Your task to perform on an android device: Add "lenovo thinkpad" to the cart on target Image 0: 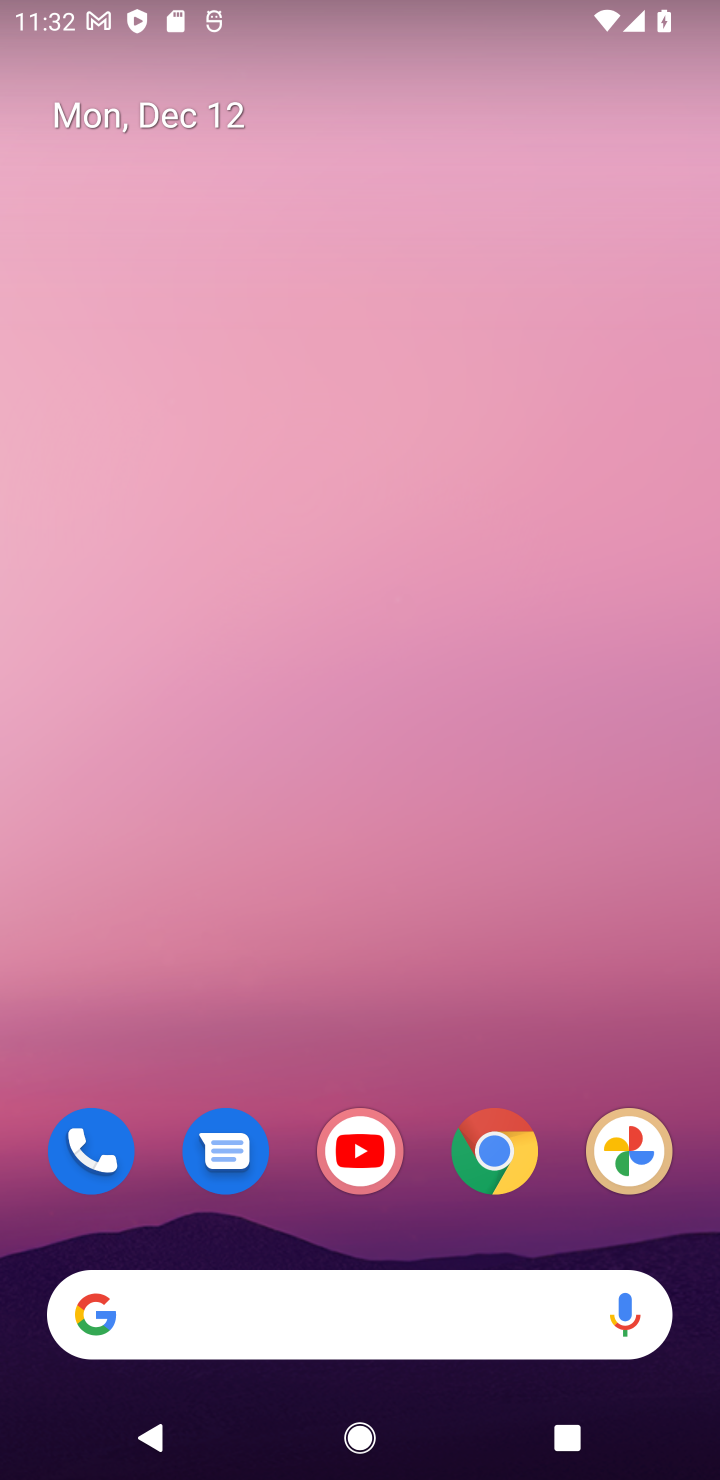
Step 0: drag from (274, 1209) to (311, 301)
Your task to perform on an android device: Add "lenovo thinkpad" to the cart on target Image 1: 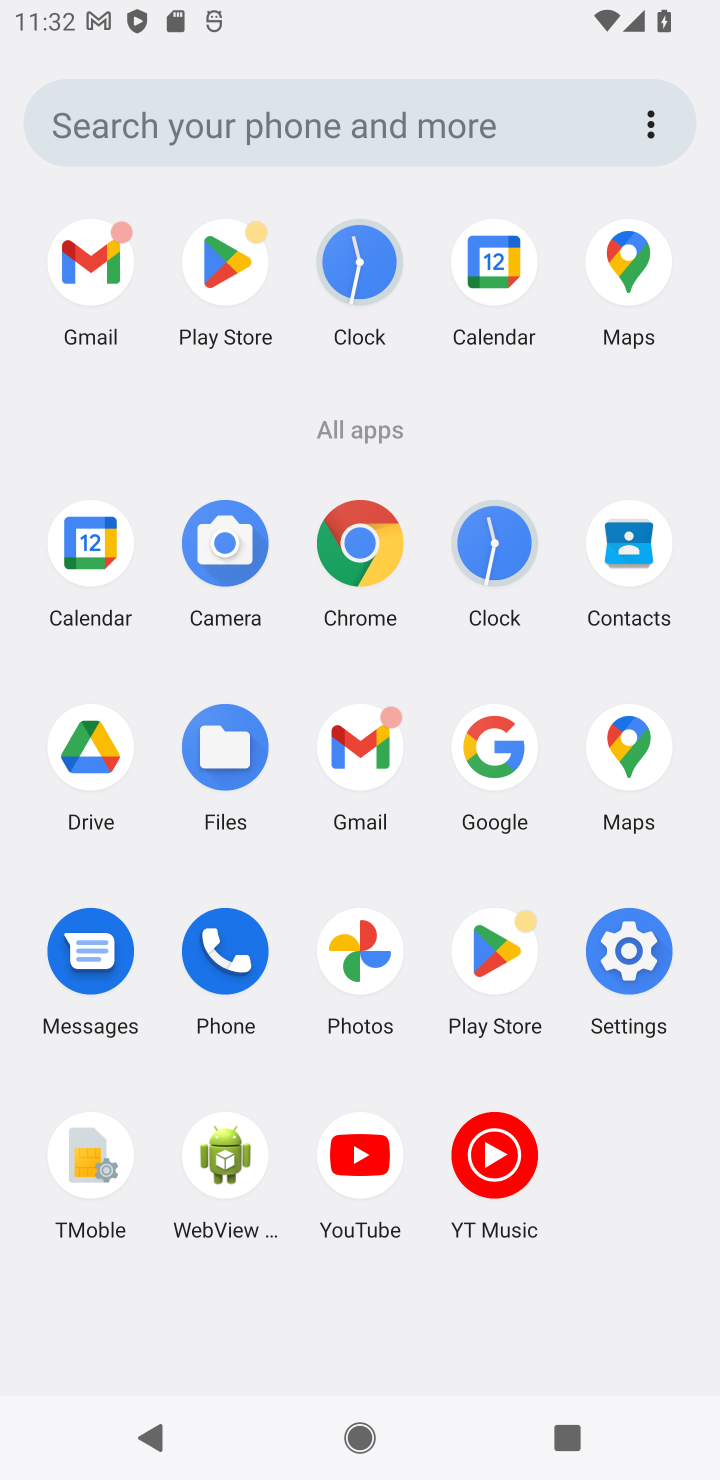
Step 1: click (507, 761)
Your task to perform on an android device: Add "lenovo thinkpad" to the cart on target Image 2: 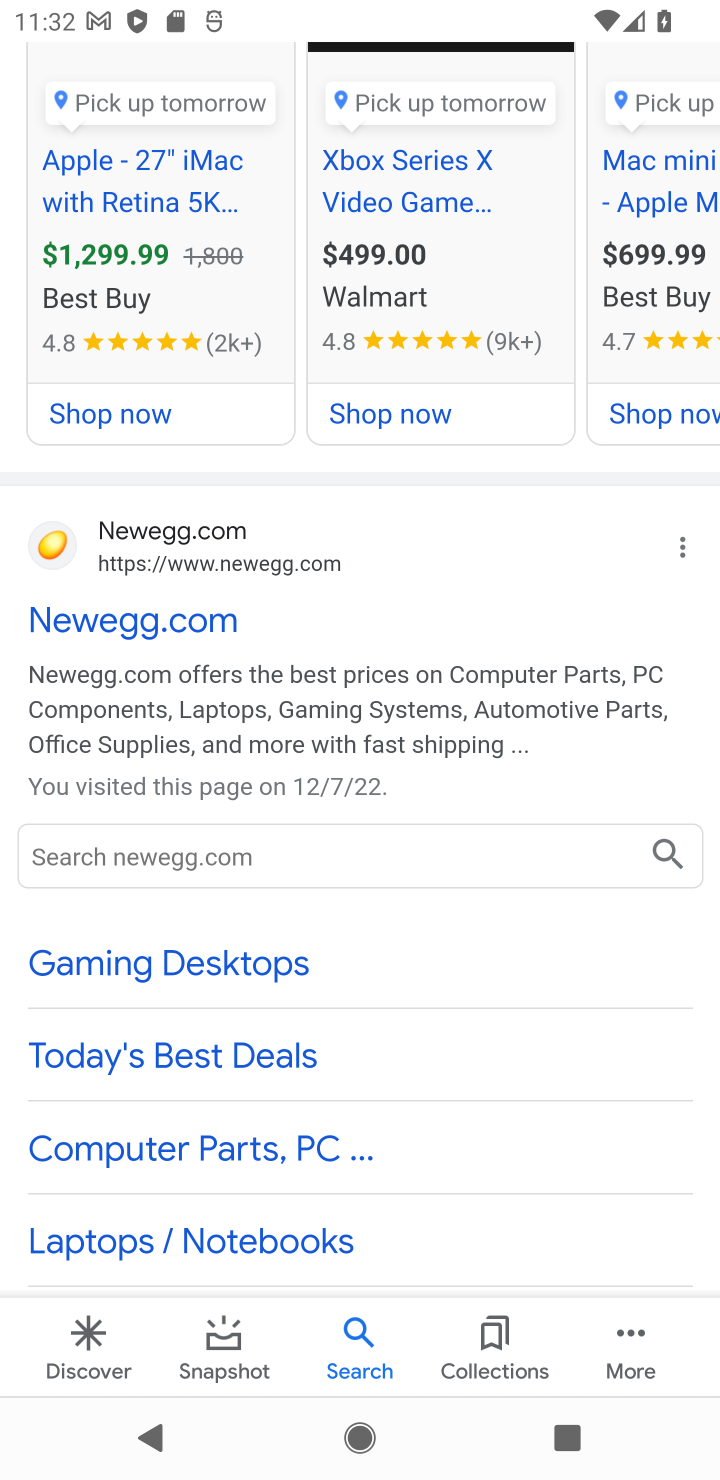
Step 2: drag from (393, 237) to (405, 991)
Your task to perform on an android device: Add "lenovo thinkpad" to the cart on target Image 3: 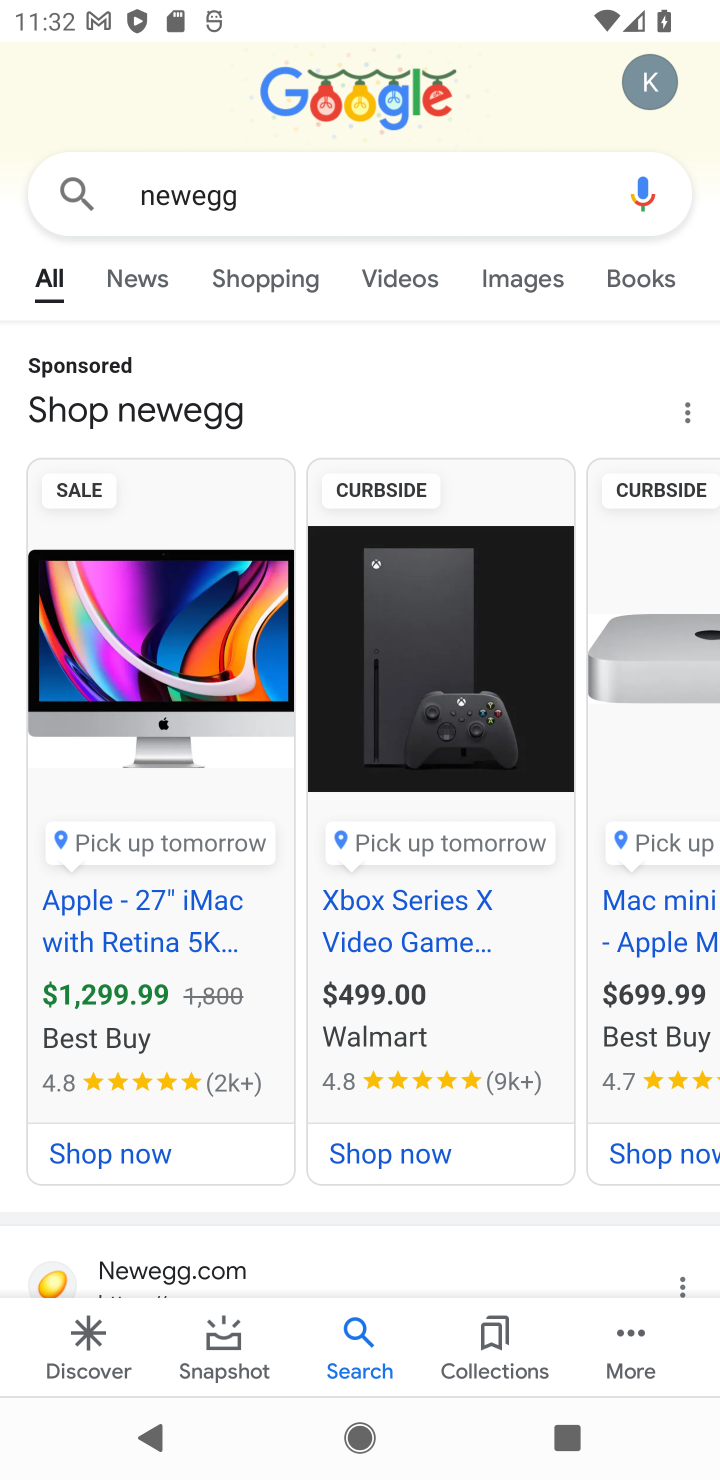
Step 3: click (182, 200)
Your task to perform on an android device: Add "lenovo thinkpad" to the cart on target Image 4: 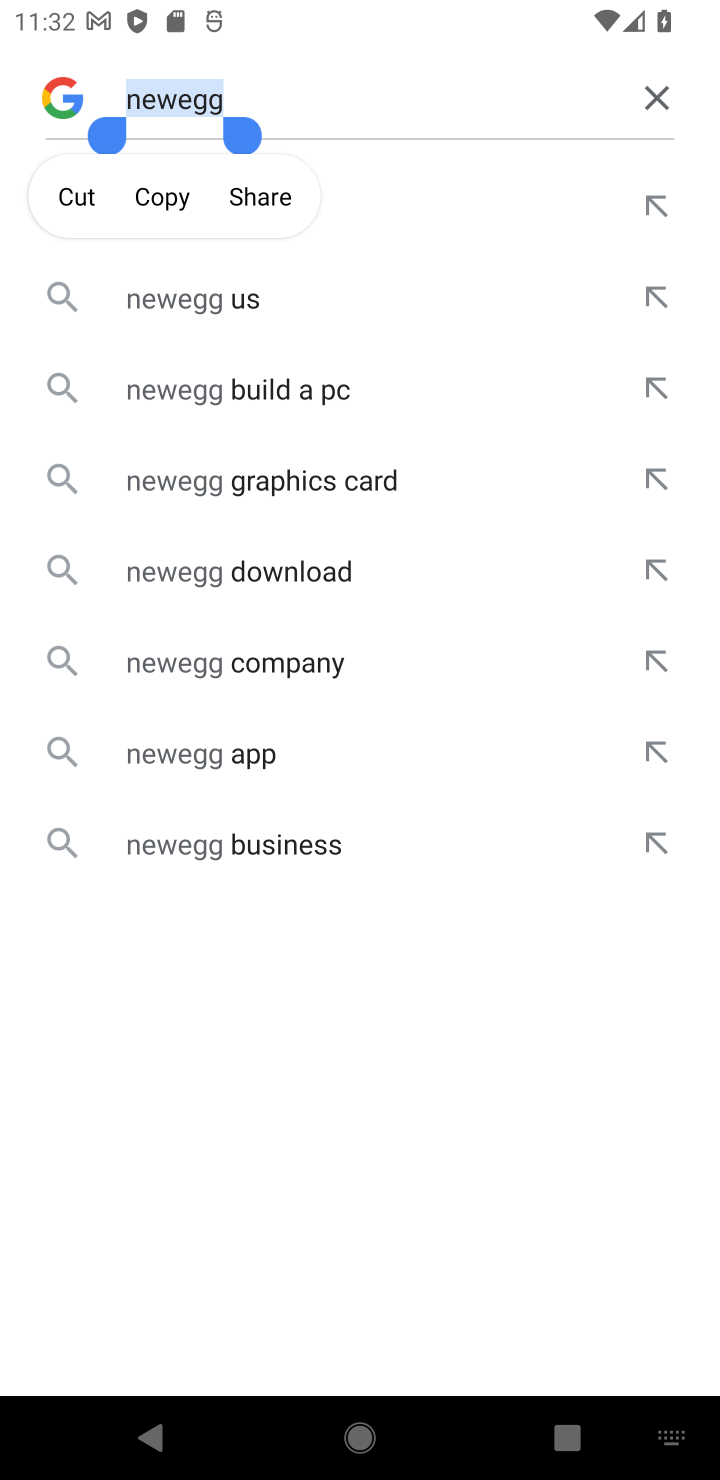
Step 4: click (651, 100)
Your task to perform on an android device: Add "lenovo thinkpad" to the cart on target Image 5: 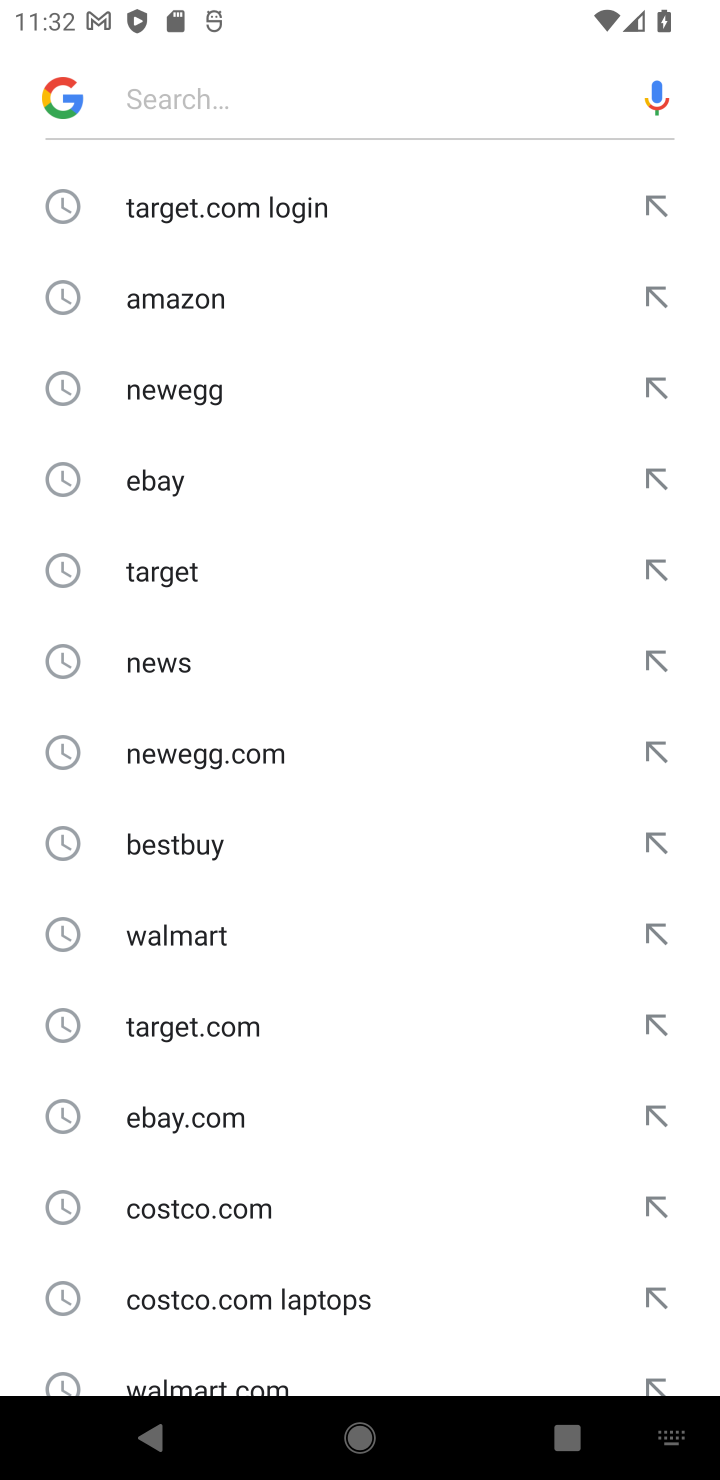
Step 5: click (159, 573)
Your task to perform on an android device: Add "lenovo thinkpad" to the cart on target Image 6: 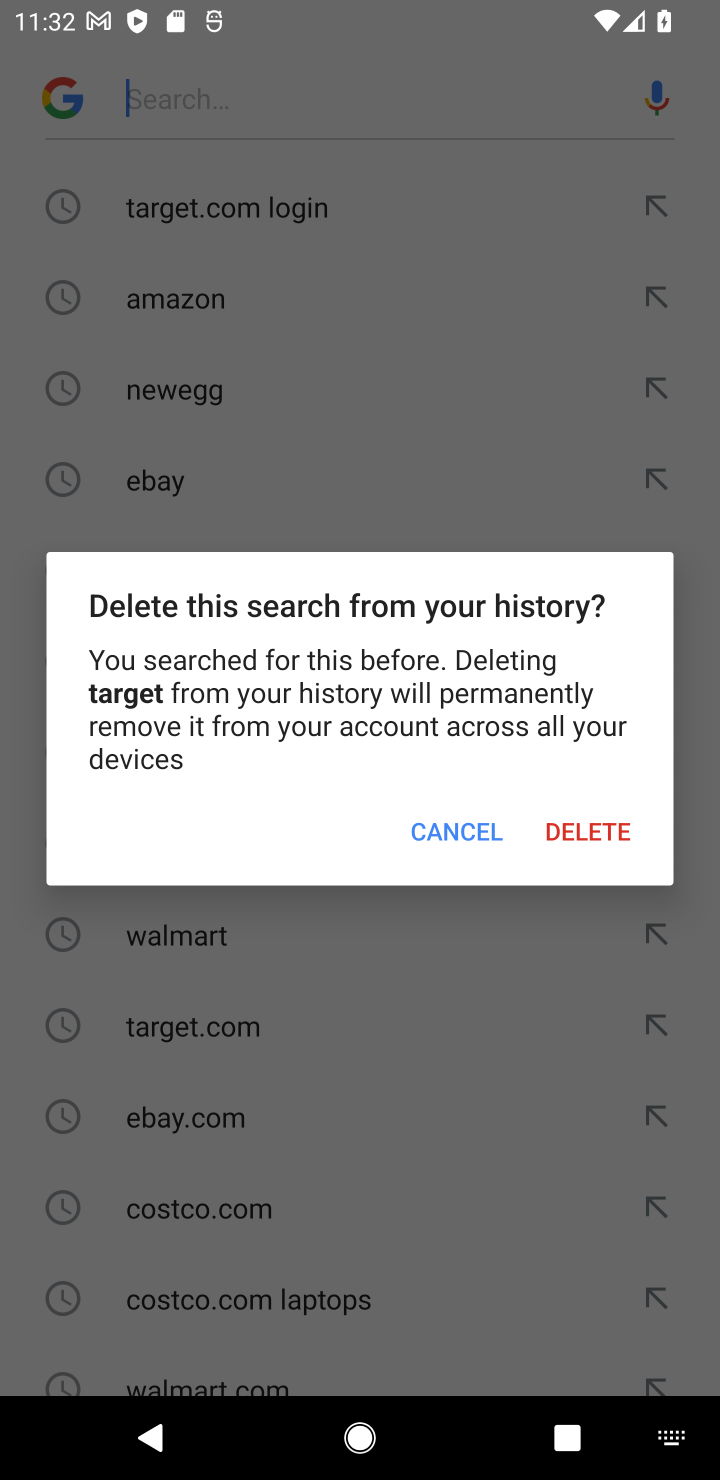
Step 6: click (470, 835)
Your task to perform on an android device: Add "lenovo thinkpad" to the cart on target Image 7: 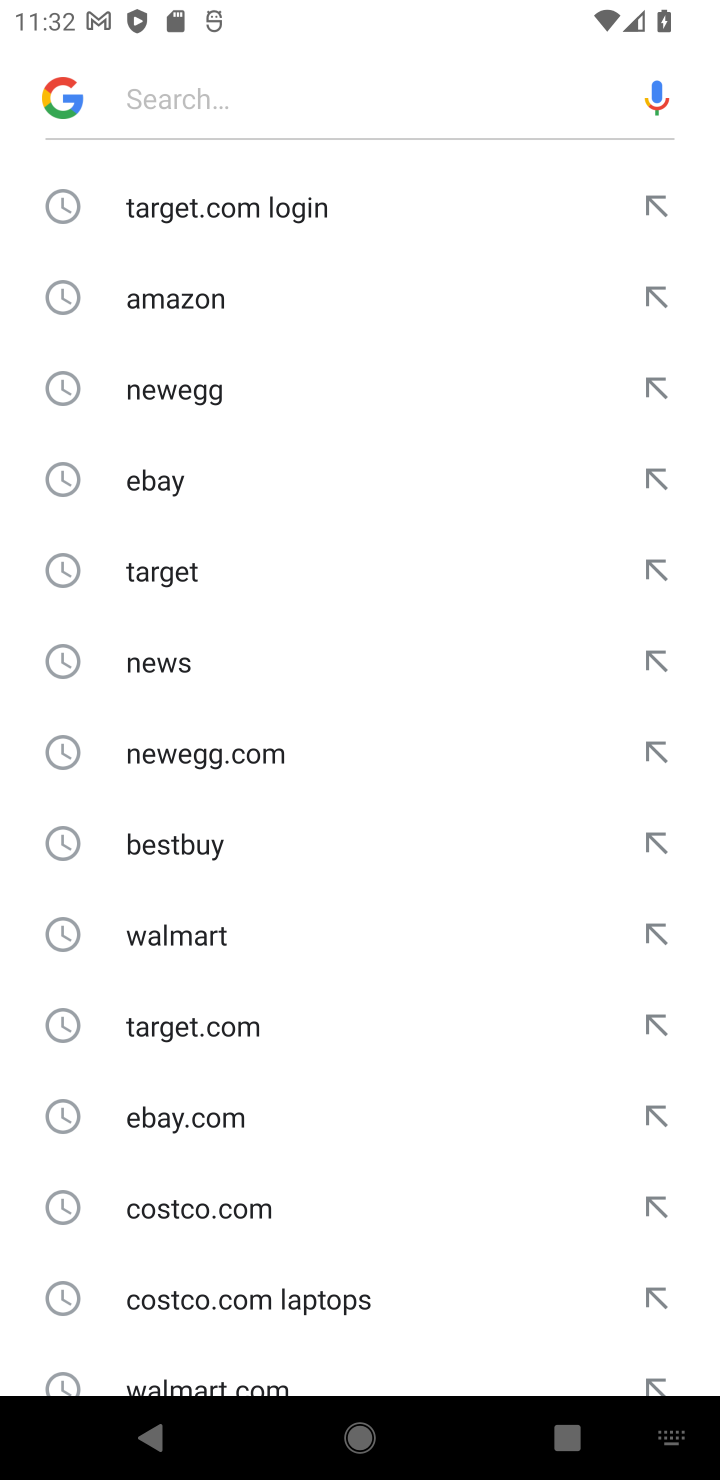
Step 7: click (183, 574)
Your task to perform on an android device: Add "lenovo thinkpad" to the cart on target Image 8: 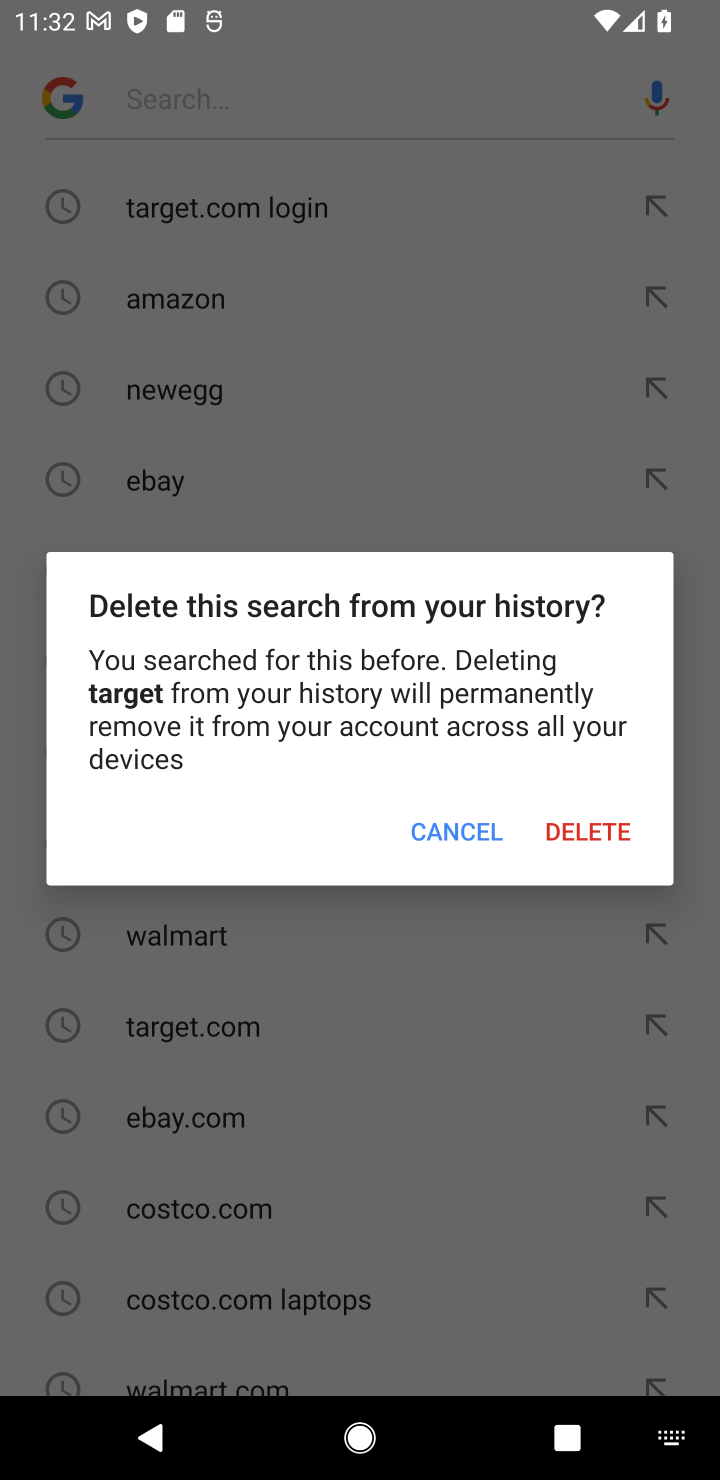
Step 8: click (440, 832)
Your task to perform on an android device: Add "lenovo thinkpad" to the cart on target Image 9: 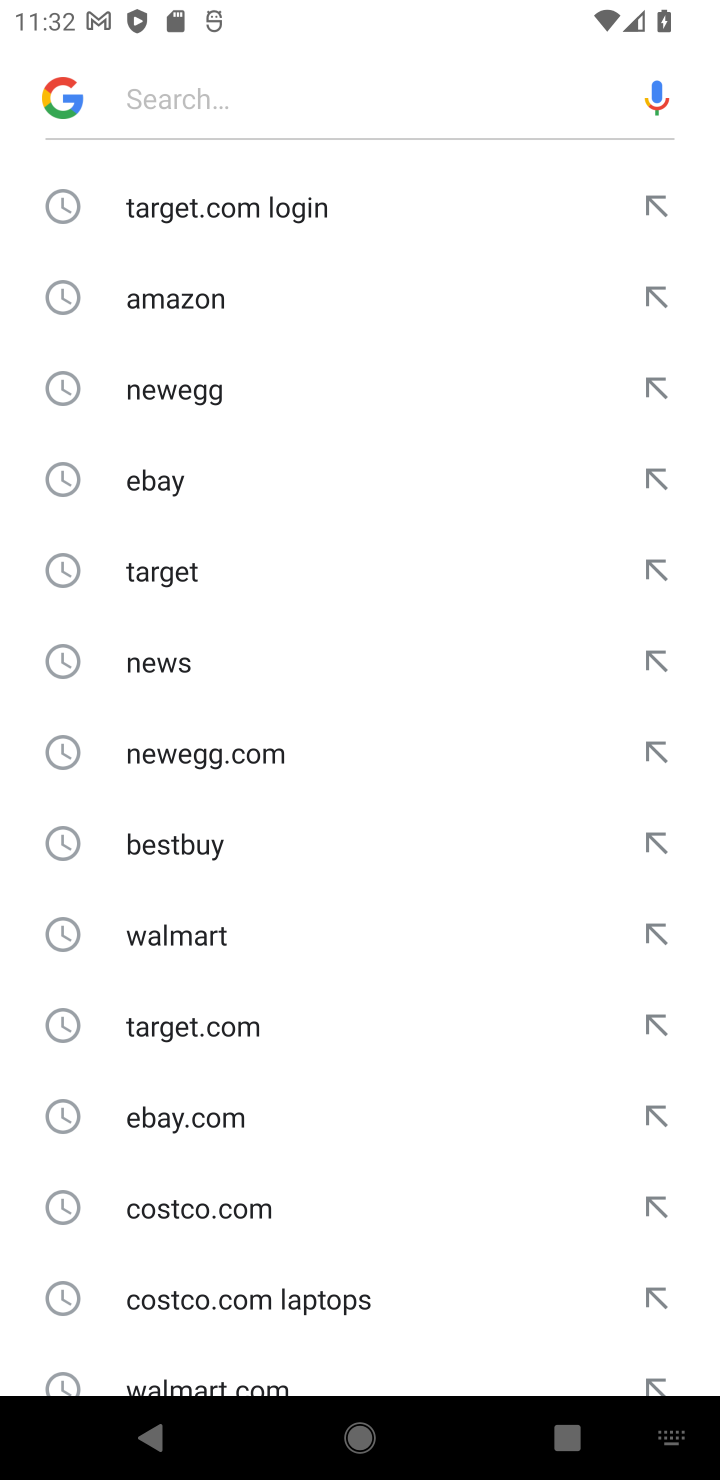
Step 9: click (178, 578)
Your task to perform on an android device: Add "lenovo thinkpad" to the cart on target Image 10: 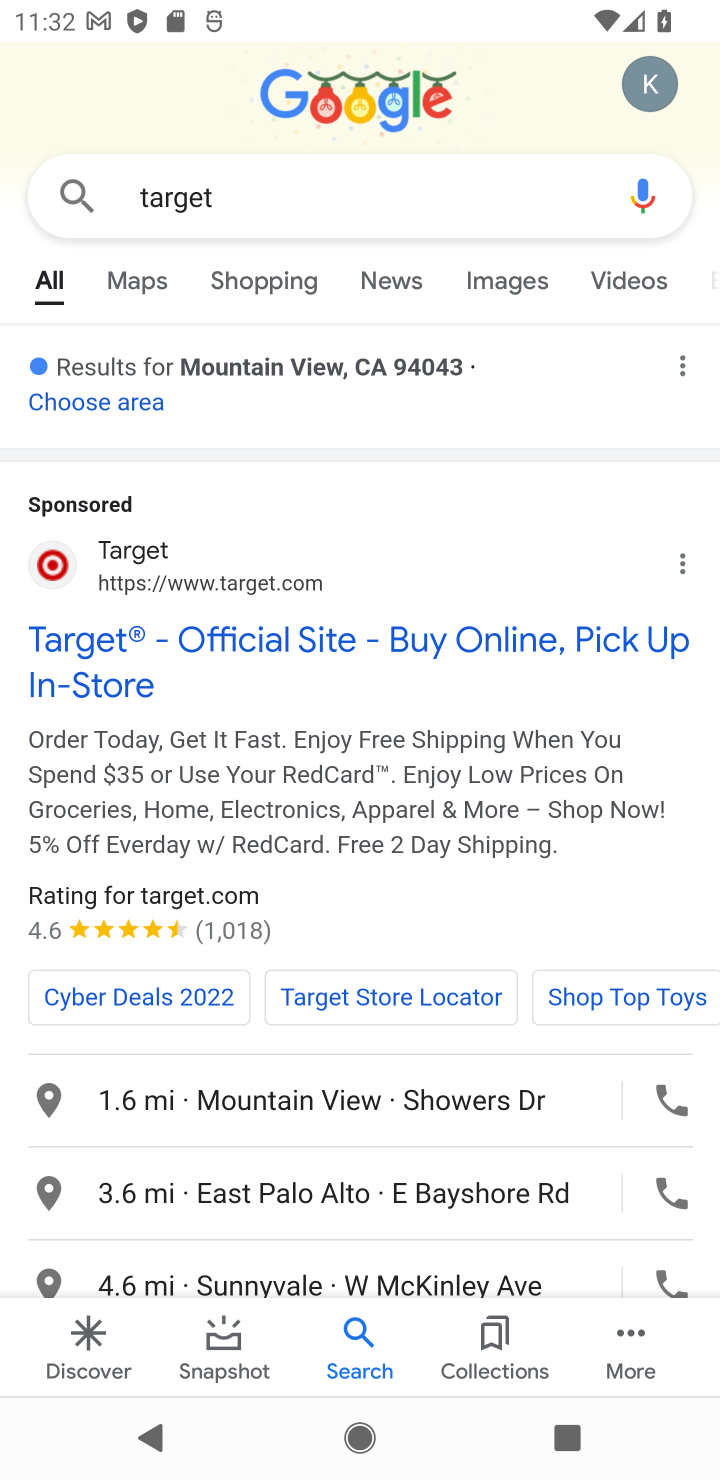
Step 10: click (310, 653)
Your task to perform on an android device: Add "lenovo thinkpad" to the cart on target Image 11: 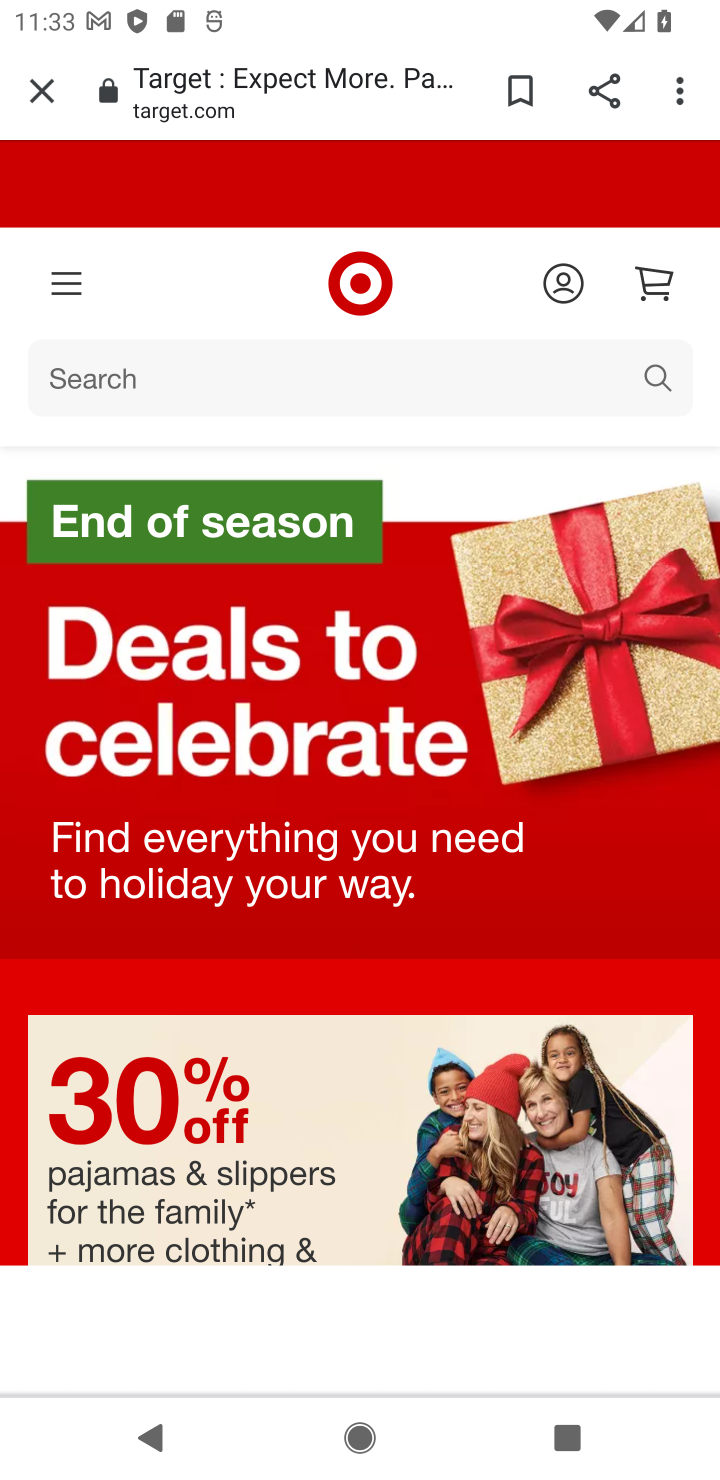
Step 11: click (199, 387)
Your task to perform on an android device: Add "lenovo thinkpad" to the cart on target Image 12: 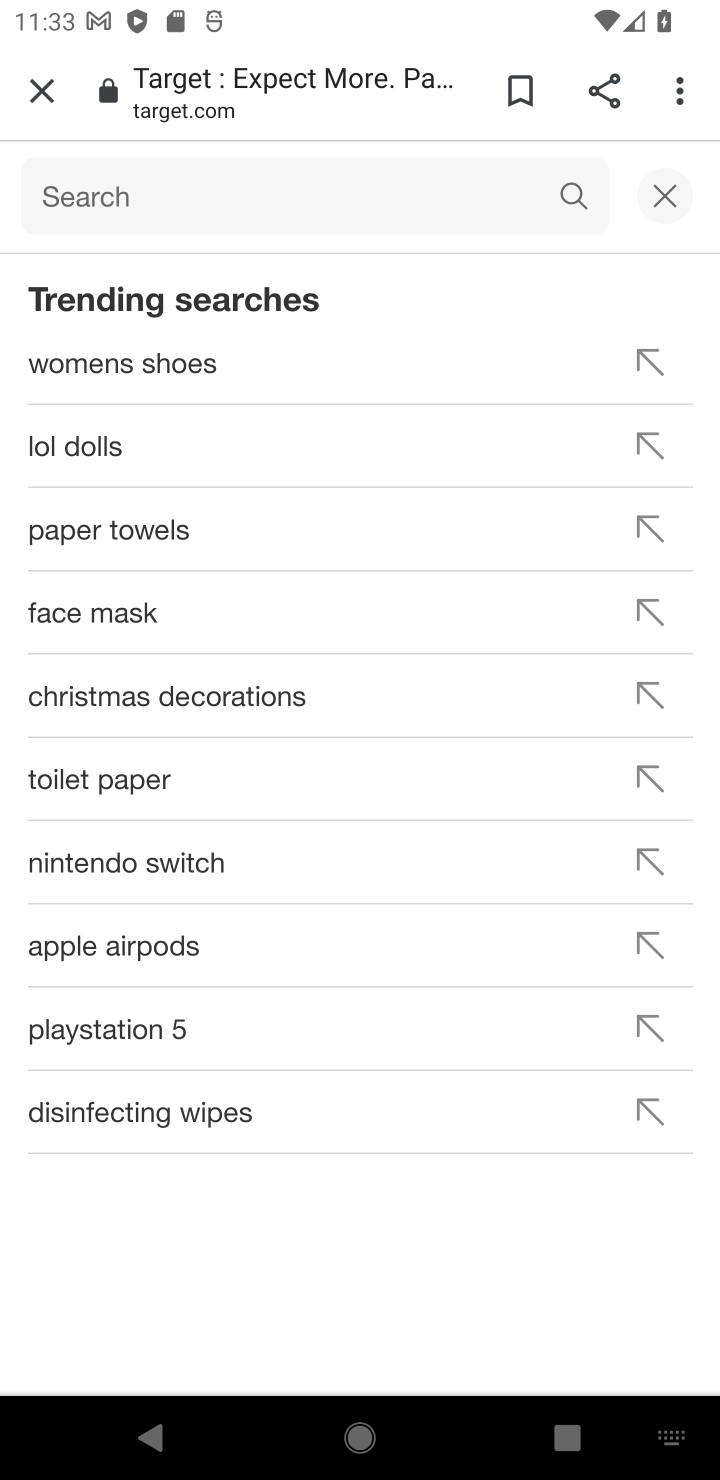
Step 12: type "lenovo thinkpad"
Your task to perform on an android device: Add "lenovo thinkpad" to the cart on target Image 13: 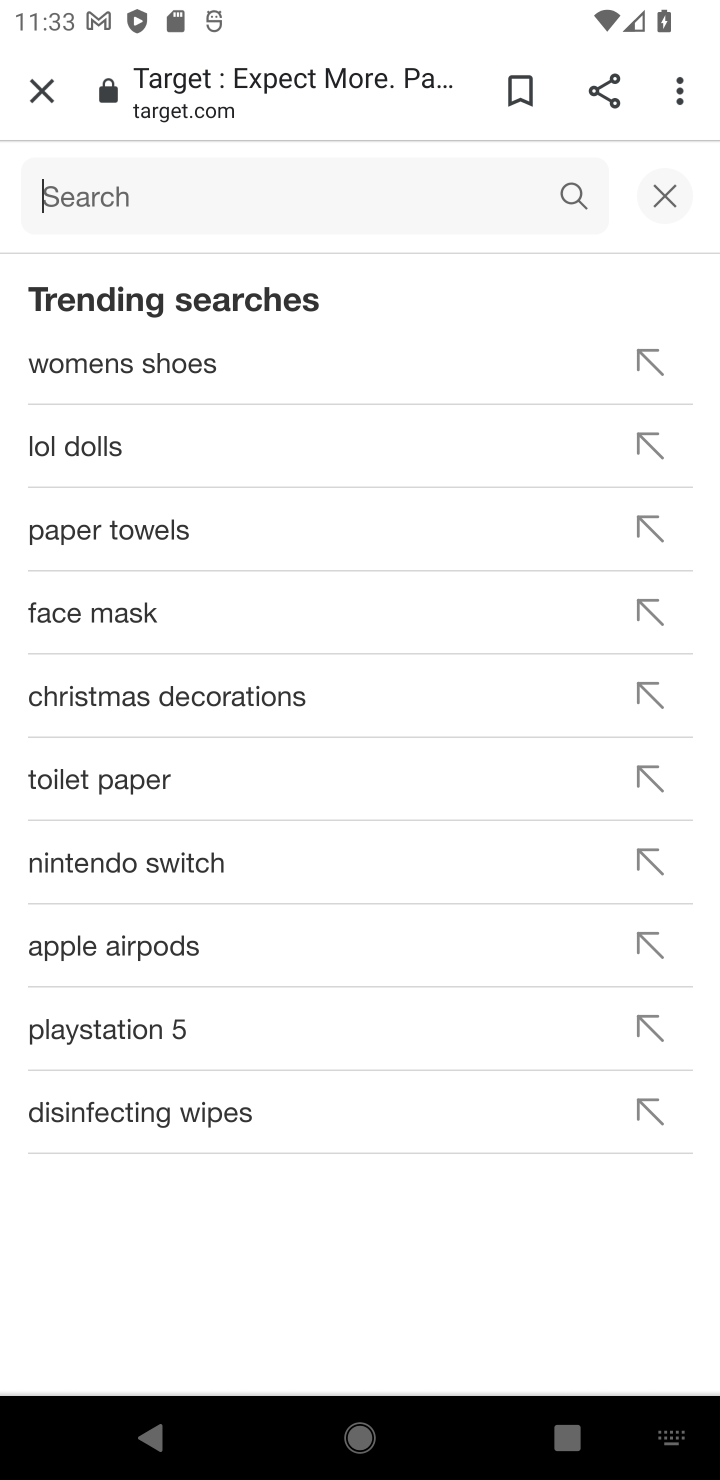
Step 13: click (574, 192)
Your task to perform on an android device: Add "lenovo thinkpad" to the cart on target Image 14: 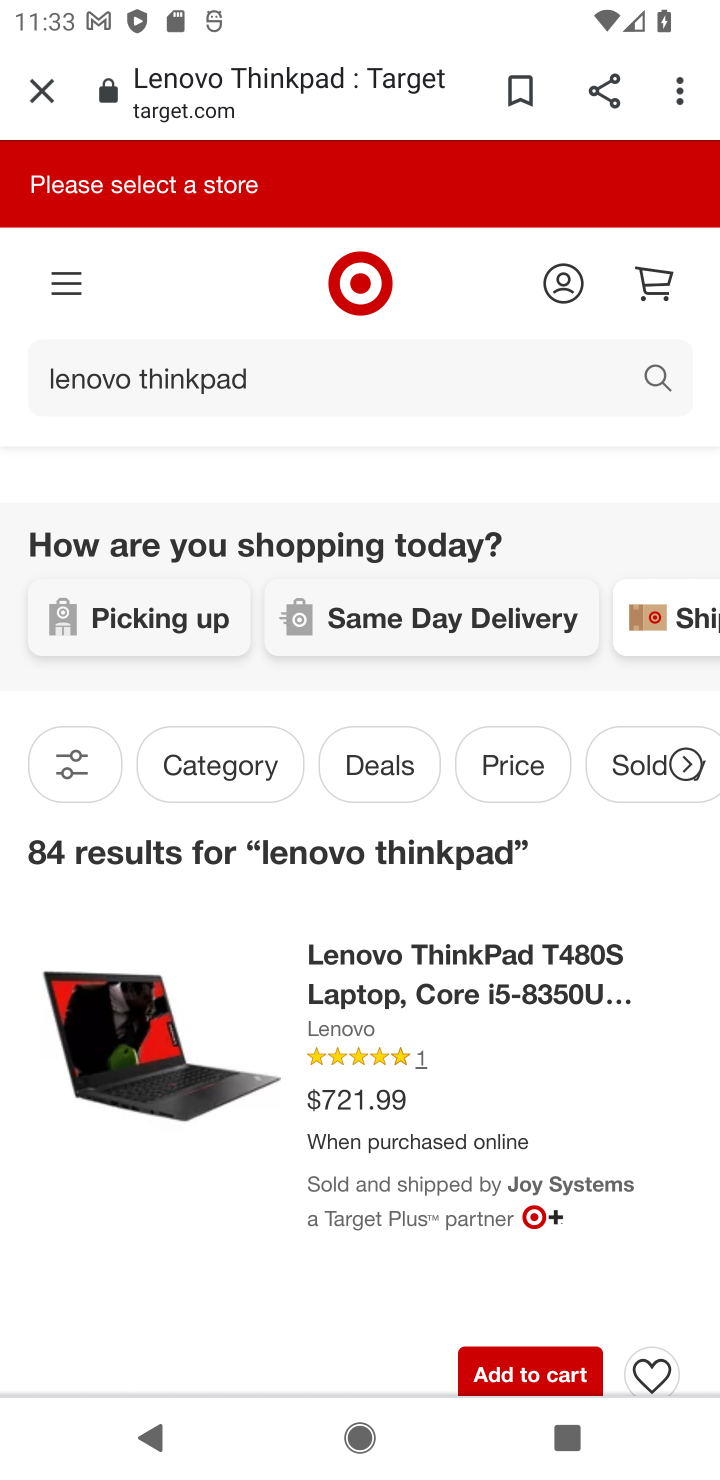
Step 14: click (530, 1382)
Your task to perform on an android device: Add "lenovo thinkpad" to the cart on target Image 15: 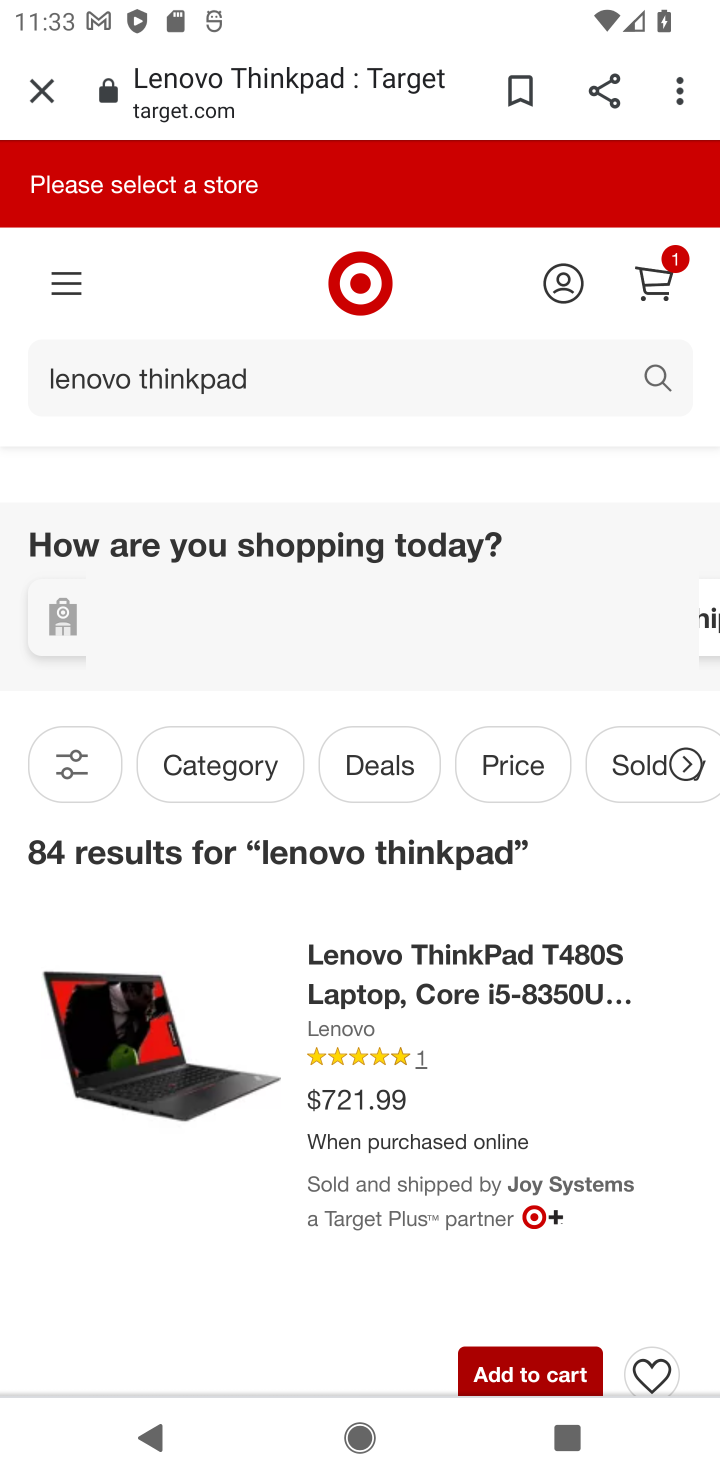
Step 15: click (548, 1381)
Your task to perform on an android device: Add "lenovo thinkpad" to the cart on target Image 16: 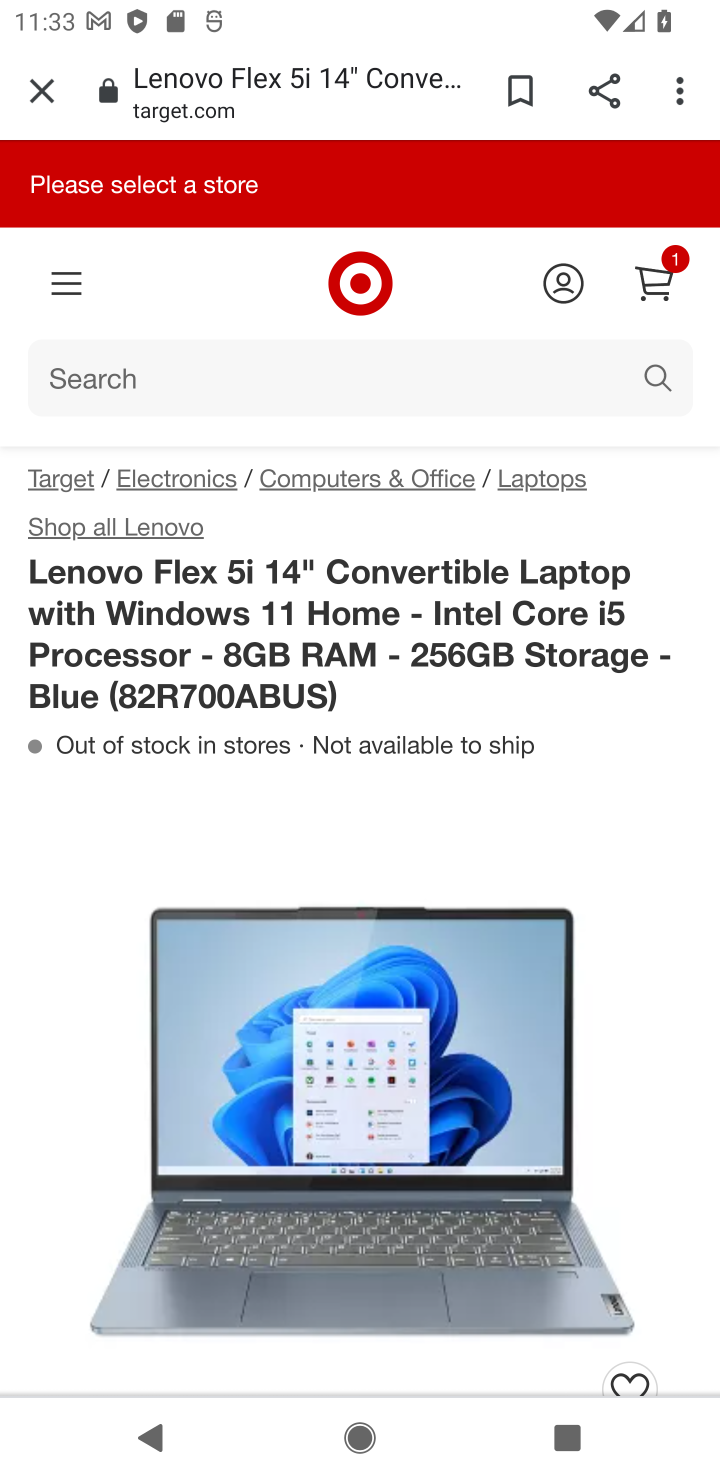
Step 16: click (657, 204)
Your task to perform on an android device: Add "lenovo thinkpad" to the cart on target Image 17: 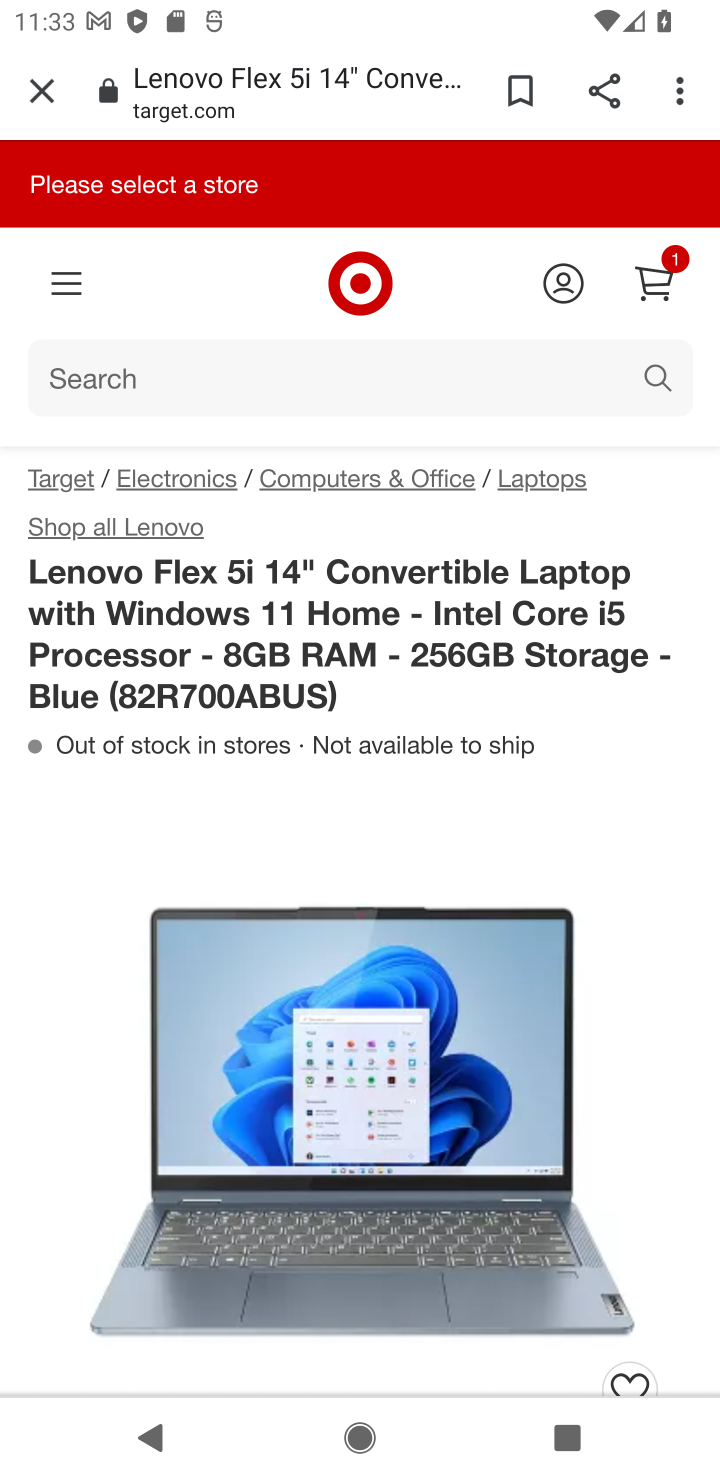
Step 17: drag from (515, 1166) to (459, 552)
Your task to perform on an android device: Add "lenovo thinkpad" to the cart on target Image 18: 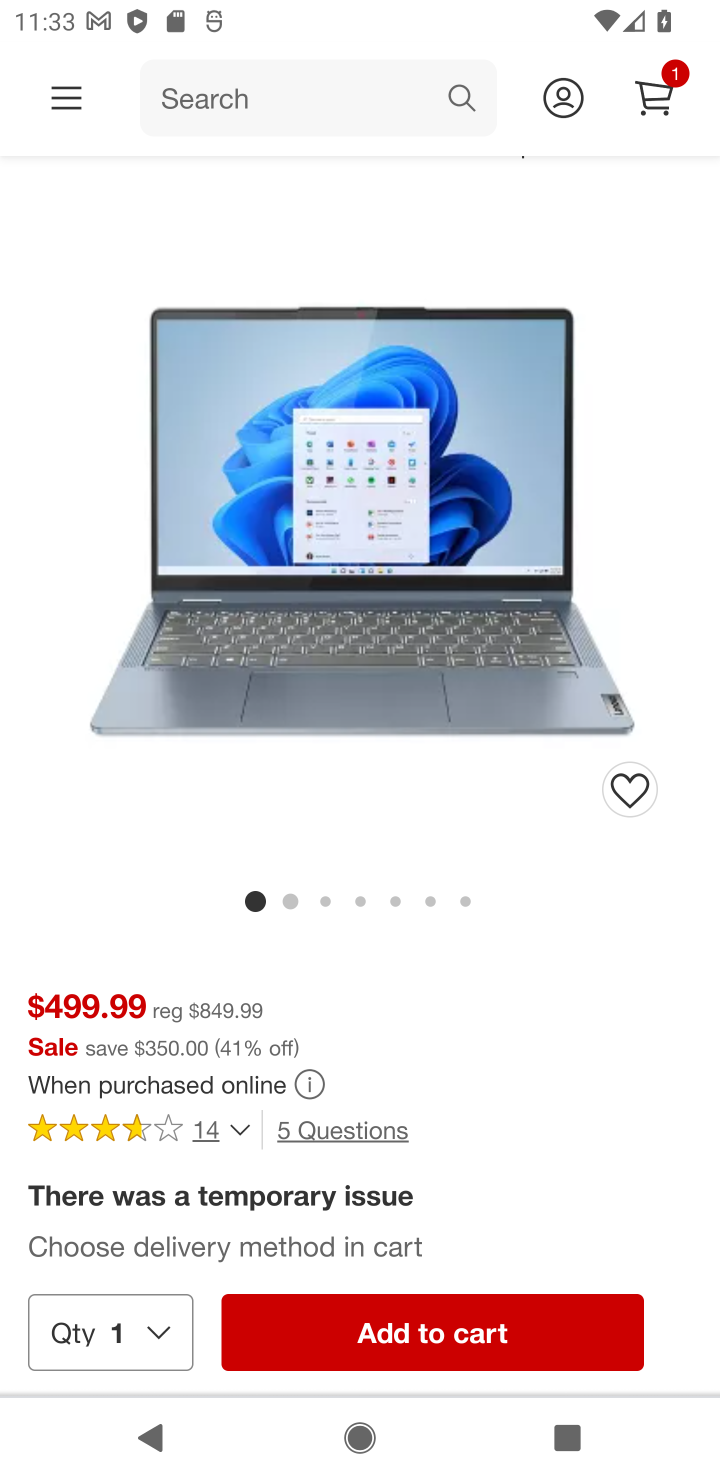
Step 18: click (475, 1326)
Your task to perform on an android device: Add "lenovo thinkpad" to the cart on target Image 19: 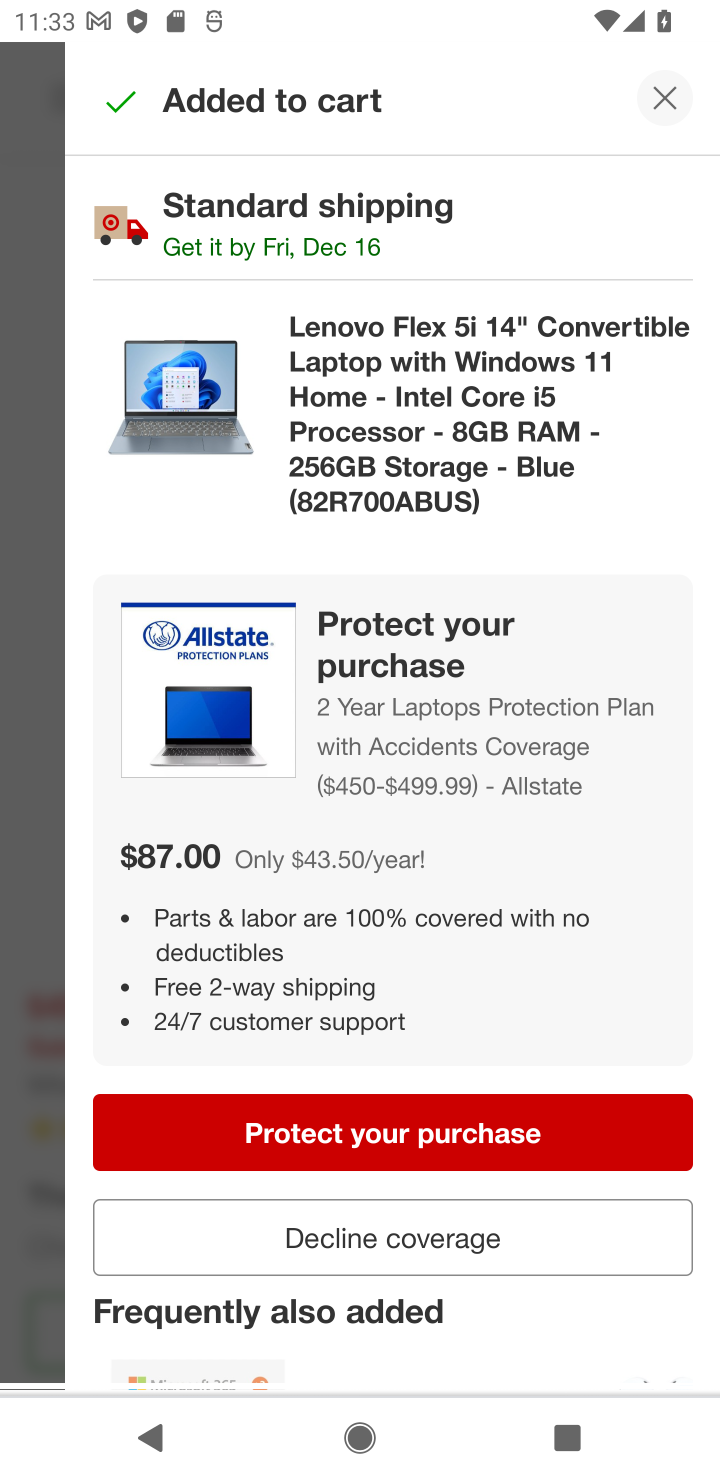
Step 19: task complete